Your task to perform on an android device: Search for sushi restaurants on Maps Image 0: 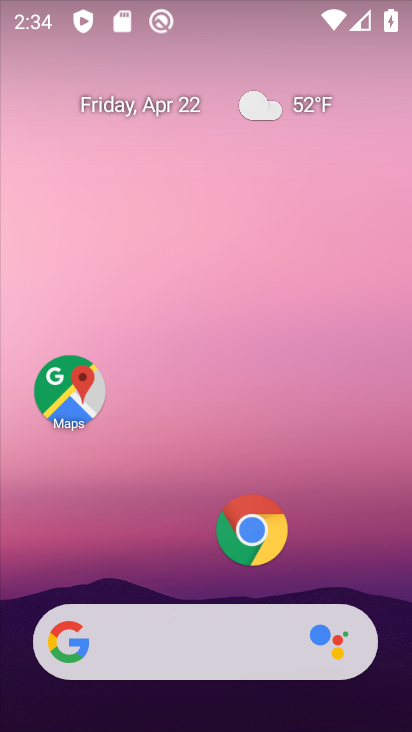
Step 0: click (65, 384)
Your task to perform on an android device: Search for sushi restaurants on Maps Image 1: 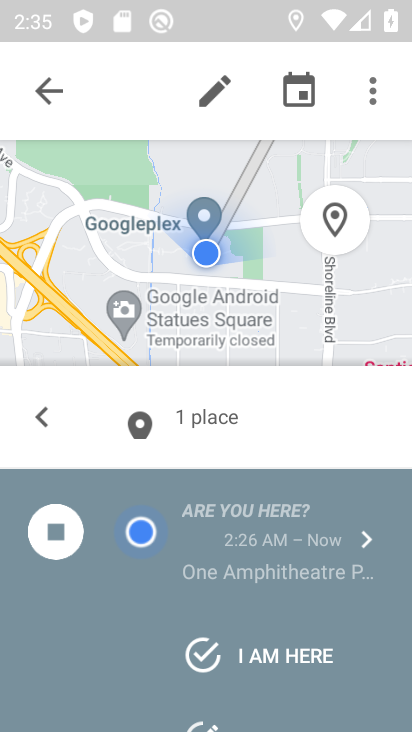
Step 1: click (51, 90)
Your task to perform on an android device: Search for sushi restaurants on Maps Image 2: 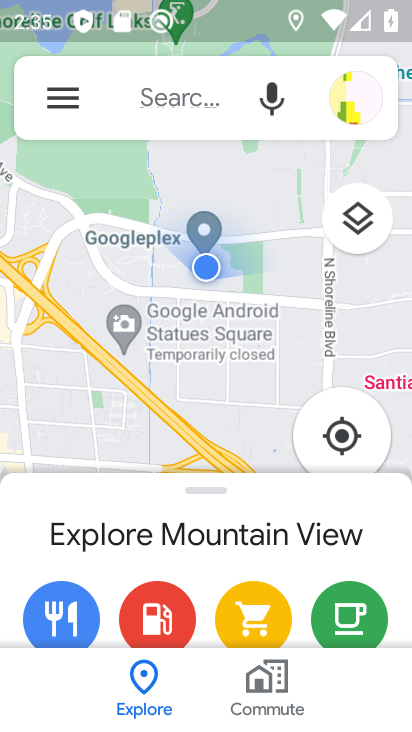
Step 2: click (196, 114)
Your task to perform on an android device: Search for sushi restaurants on Maps Image 3: 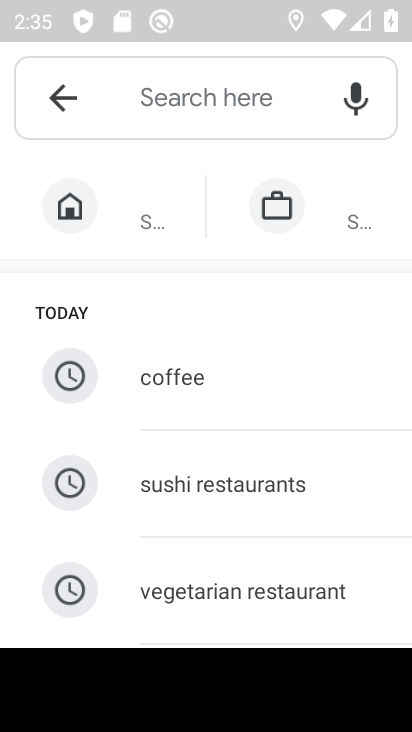
Step 3: drag from (188, 402) to (201, 206)
Your task to perform on an android device: Search for sushi restaurants on Maps Image 4: 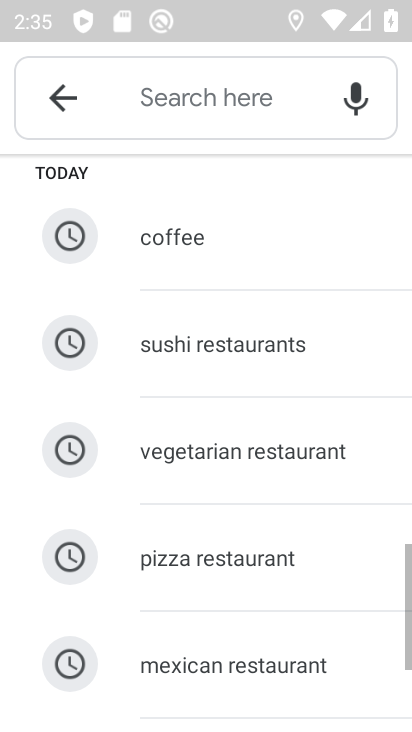
Step 4: click (219, 335)
Your task to perform on an android device: Search for sushi restaurants on Maps Image 5: 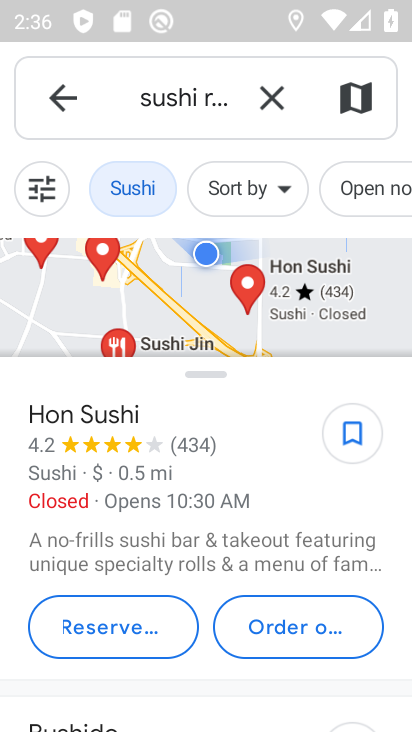
Step 5: task complete